Your task to perform on an android device: Open display settings Image 0: 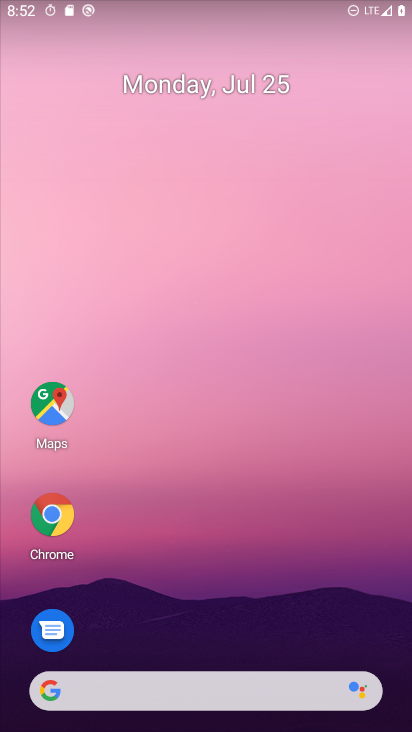
Step 0: drag from (13, 684) to (236, 164)
Your task to perform on an android device: Open display settings Image 1: 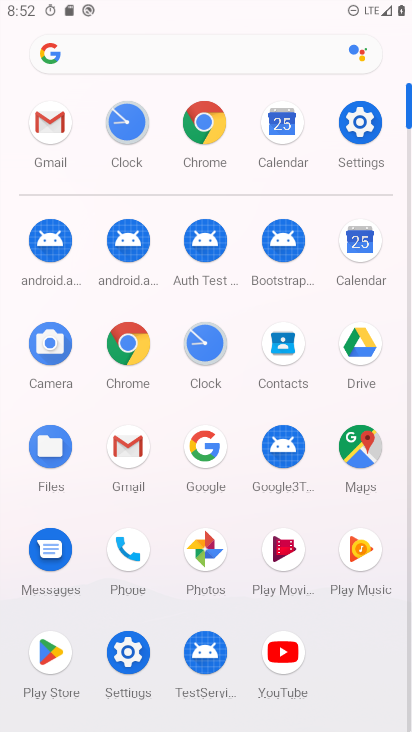
Step 1: click (151, 643)
Your task to perform on an android device: Open display settings Image 2: 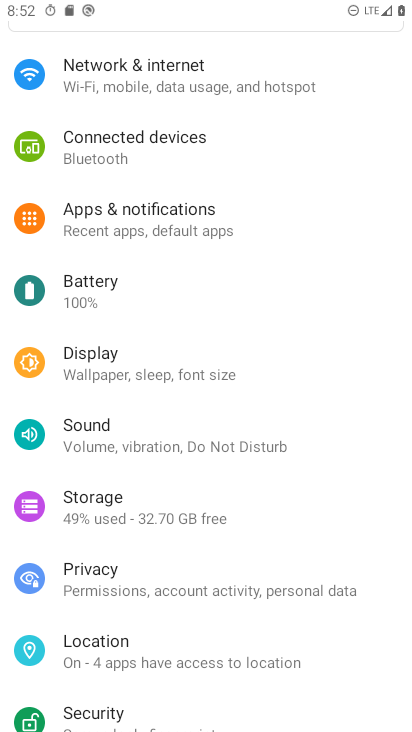
Step 2: click (136, 355)
Your task to perform on an android device: Open display settings Image 3: 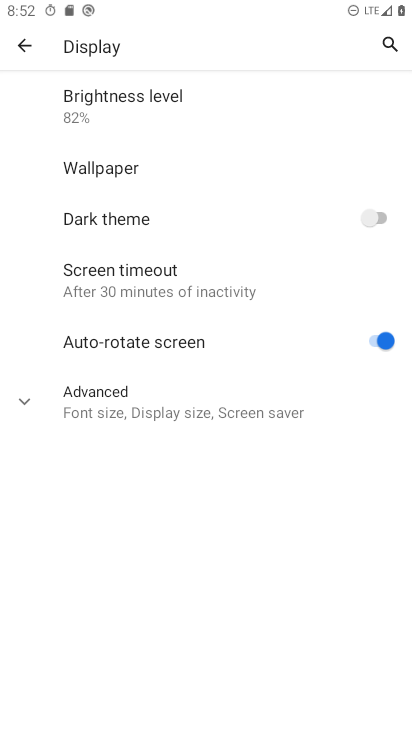
Step 3: task complete